Your task to perform on an android device: uninstall "DuckDuckGo Privacy Browser" Image 0: 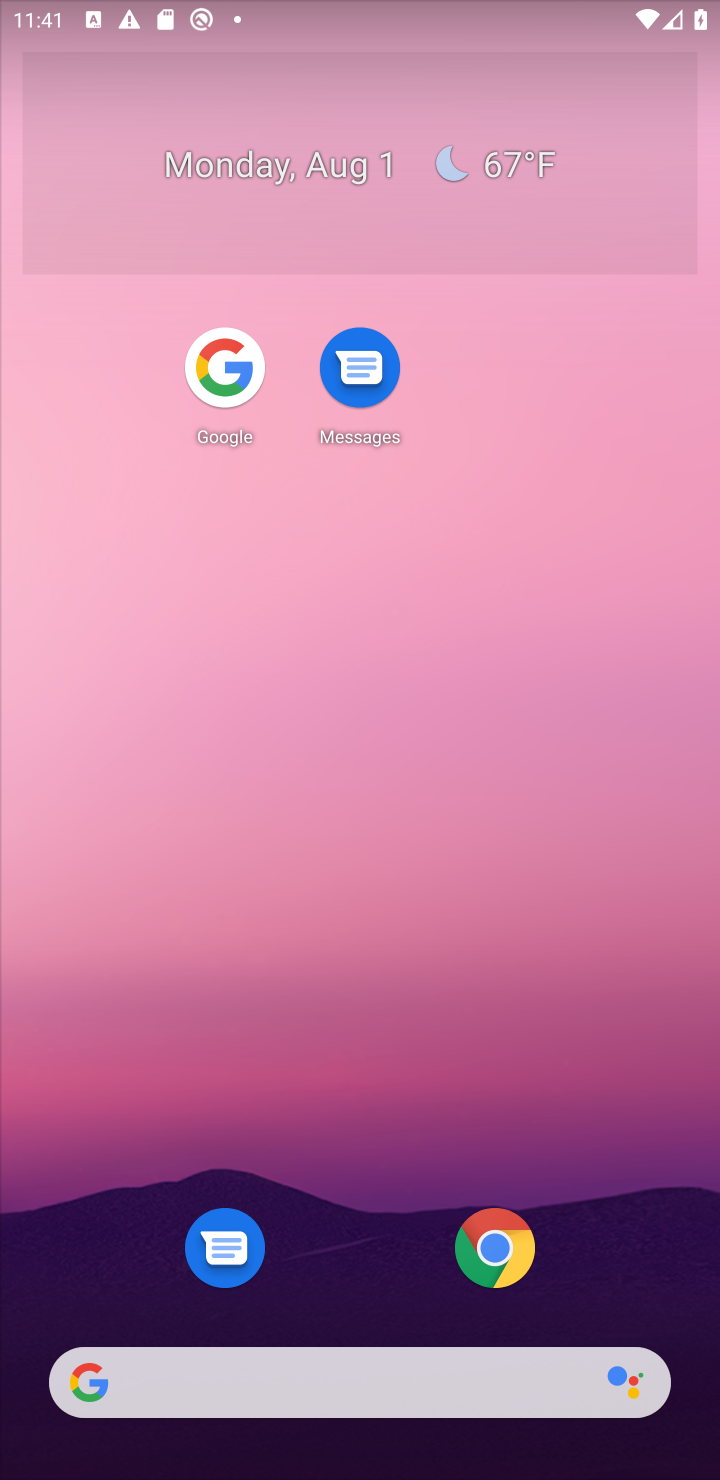
Step 0: drag from (524, 851) to (576, 253)
Your task to perform on an android device: uninstall "DuckDuckGo Privacy Browser" Image 1: 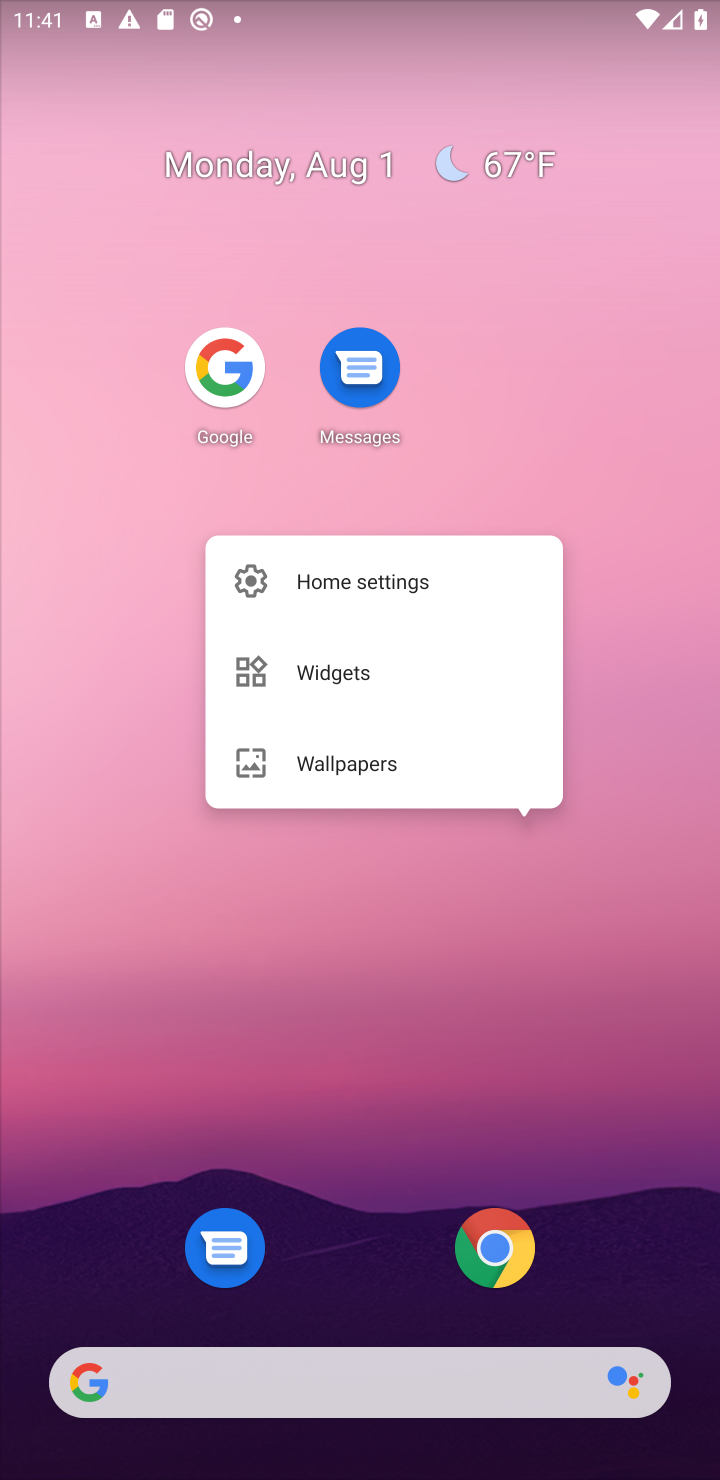
Step 1: click (524, 539)
Your task to perform on an android device: uninstall "DuckDuckGo Privacy Browser" Image 2: 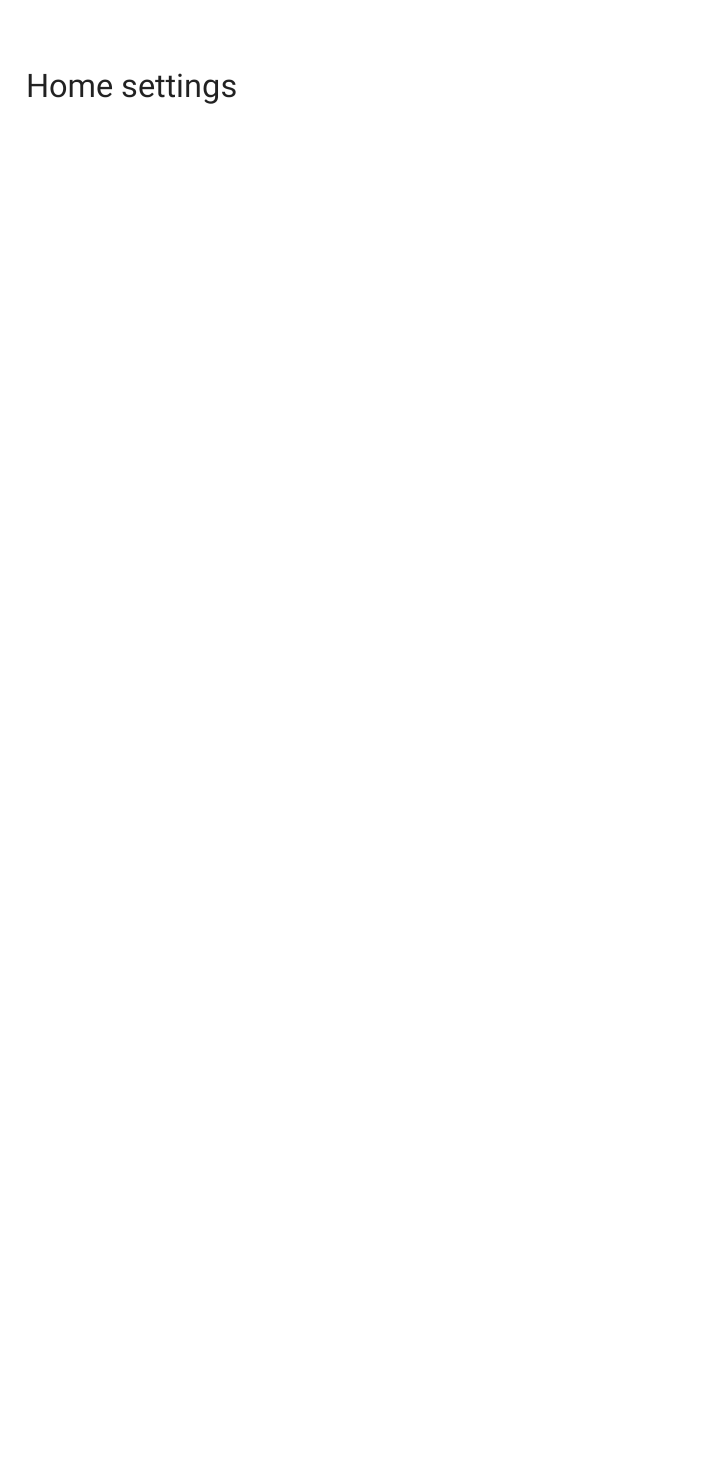
Step 2: click (531, 501)
Your task to perform on an android device: uninstall "DuckDuckGo Privacy Browser" Image 3: 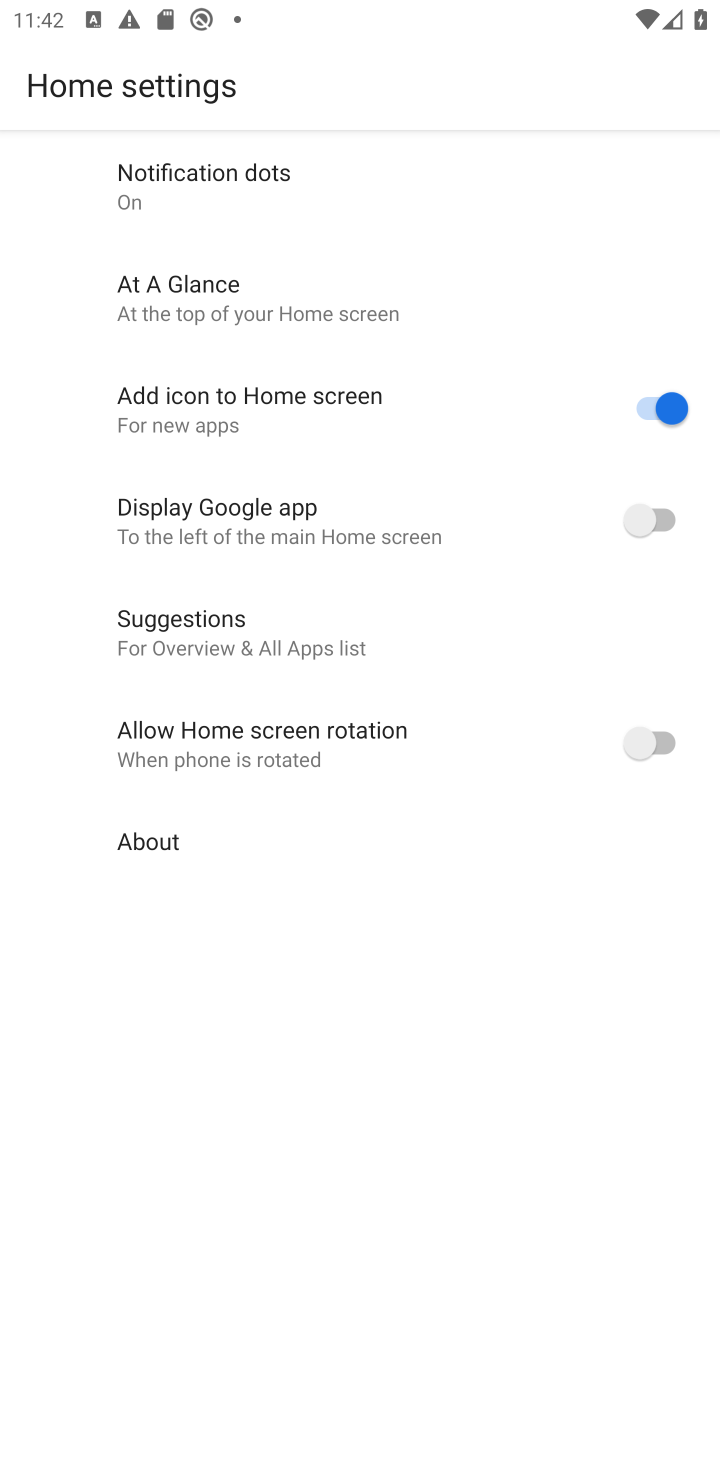
Step 3: press home button
Your task to perform on an android device: uninstall "DuckDuckGo Privacy Browser" Image 4: 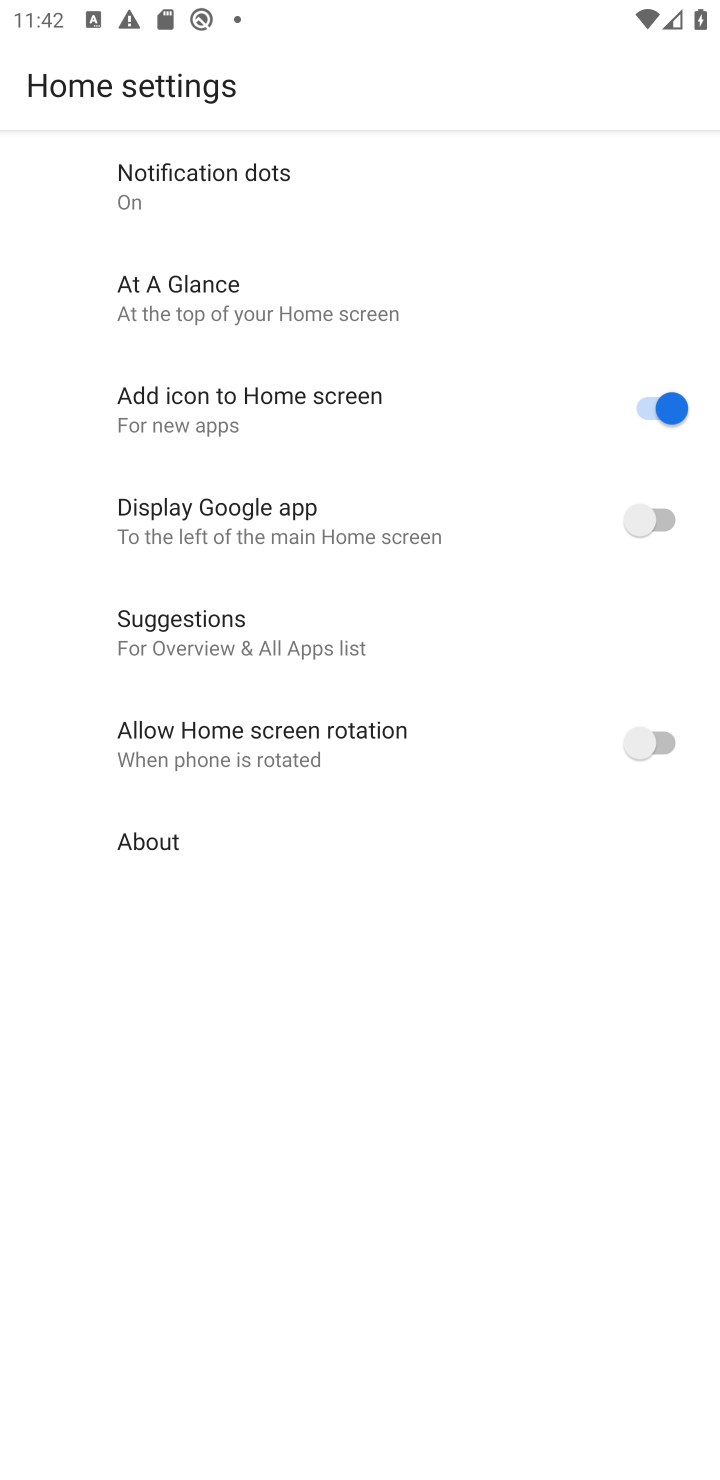
Step 4: press home button
Your task to perform on an android device: uninstall "DuckDuckGo Privacy Browser" Image 5: 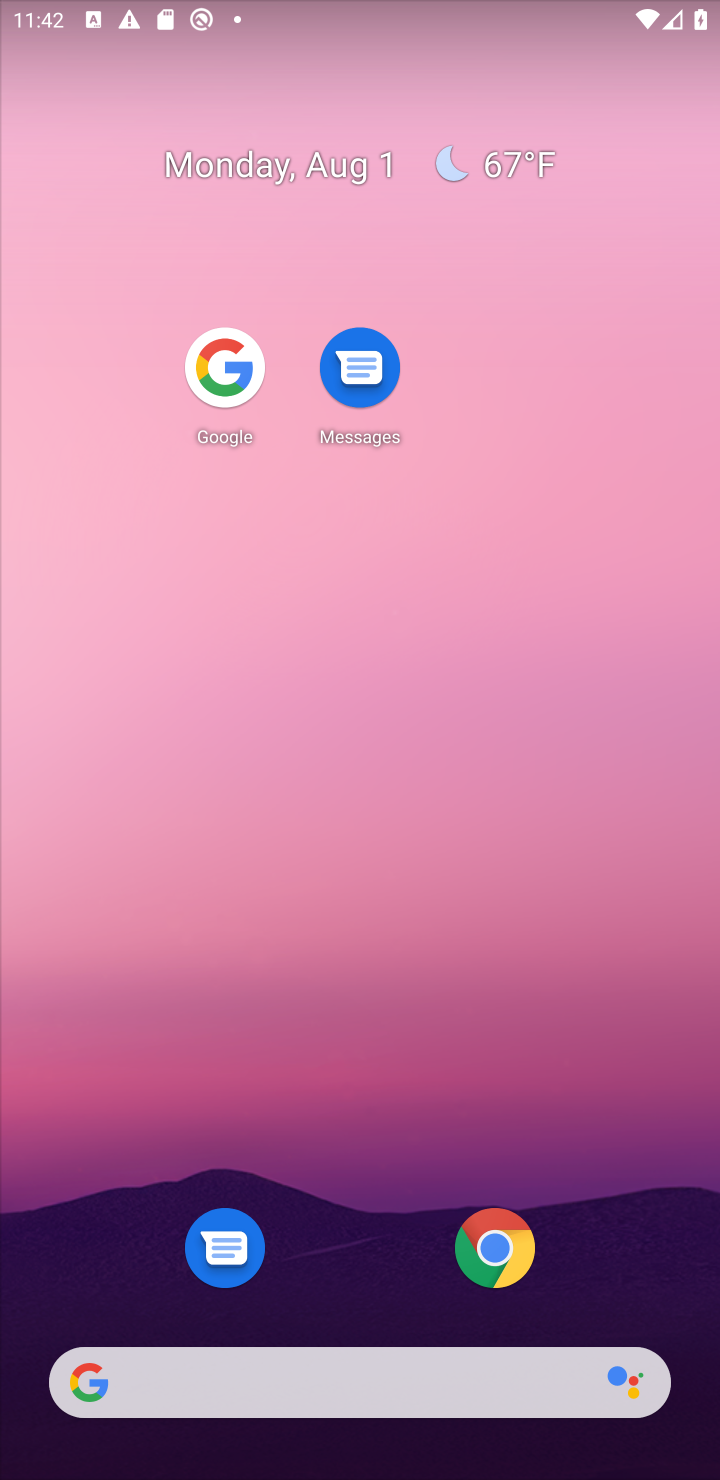
Step 5: press home button
Your task to perform on an android device: uninstall "DuckDuckGo Privacy Browser" Image 6: 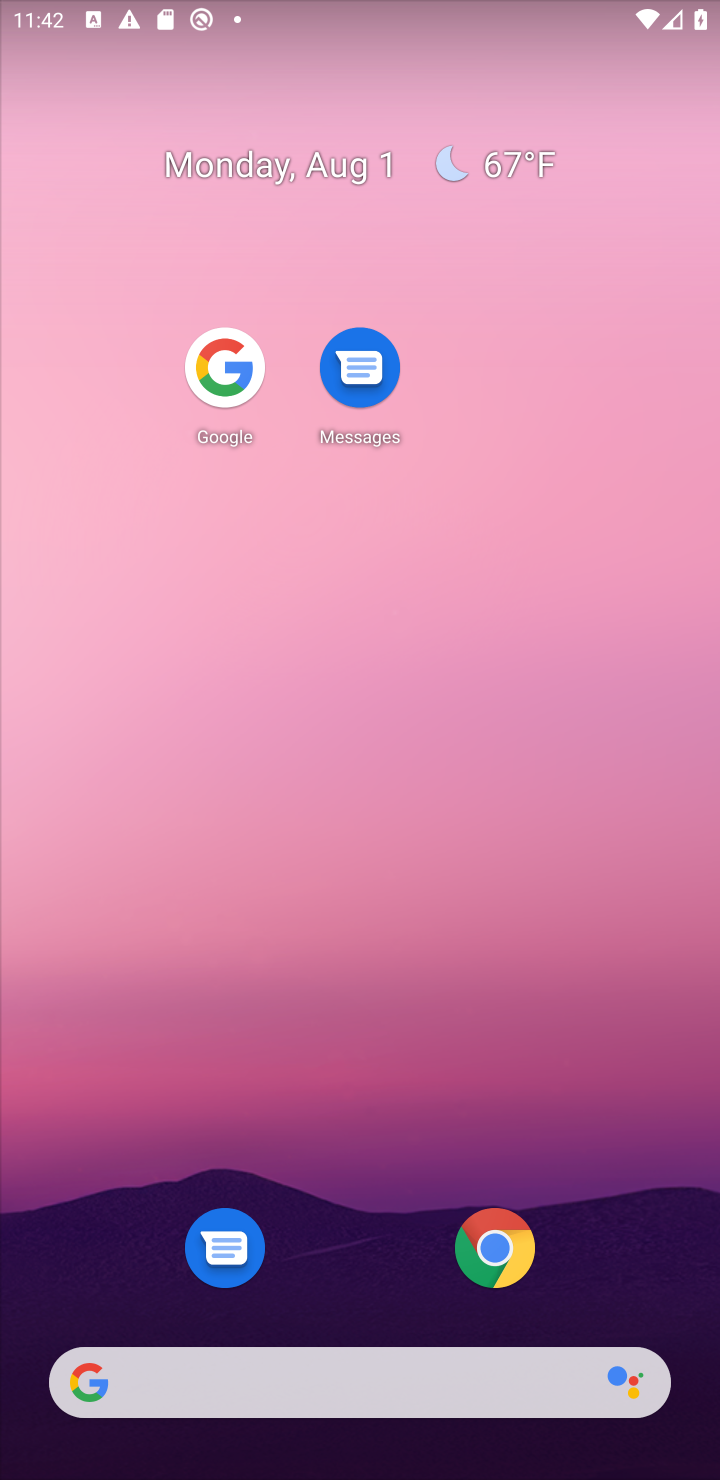
Step 6: drag from (601, 1065) to (578, 167)
Your task to perform on an android device: uninstall "DuckDuckGo Privacy Browser" Image 7: 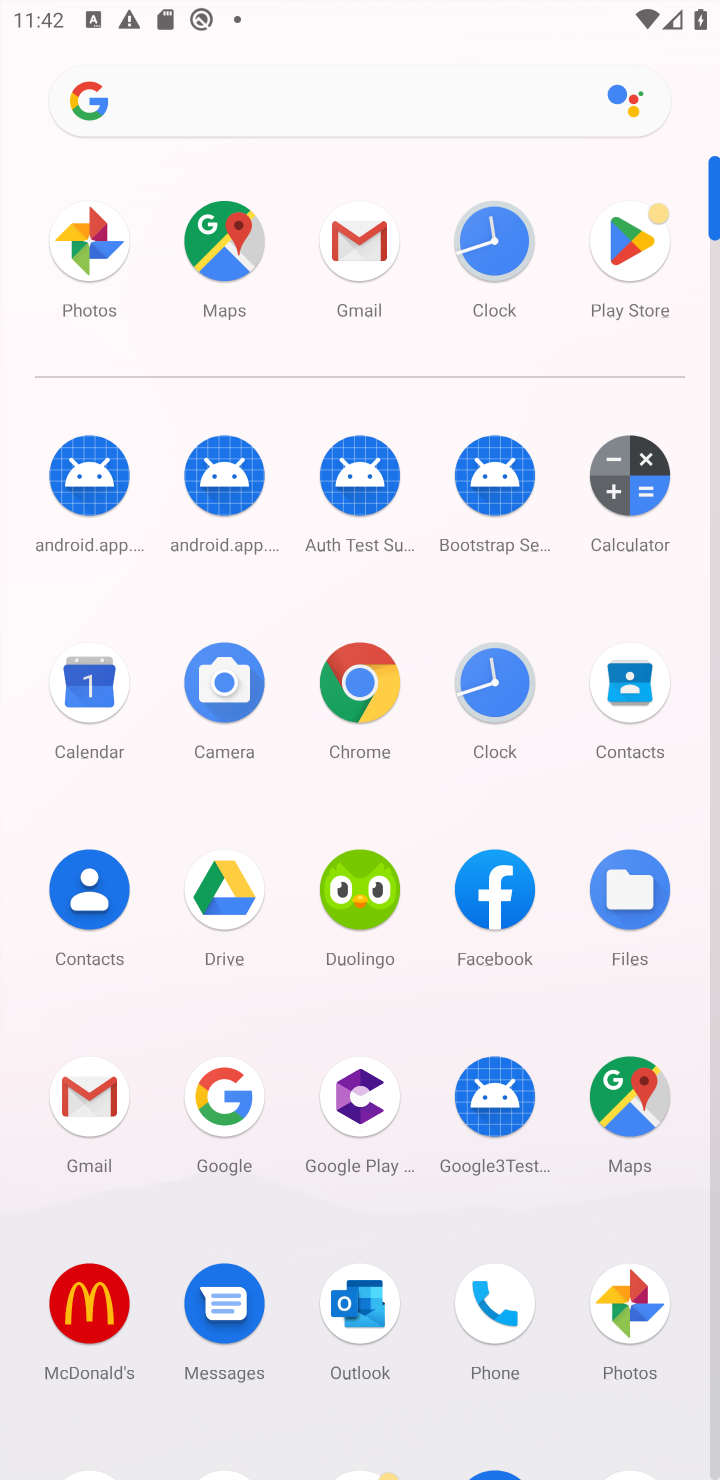
Step 7: drag from (298, 1221) to (262, 444)
Your task to perform on an android device: uninstall "DuckDuckGo Privacy Browser" Image 8: 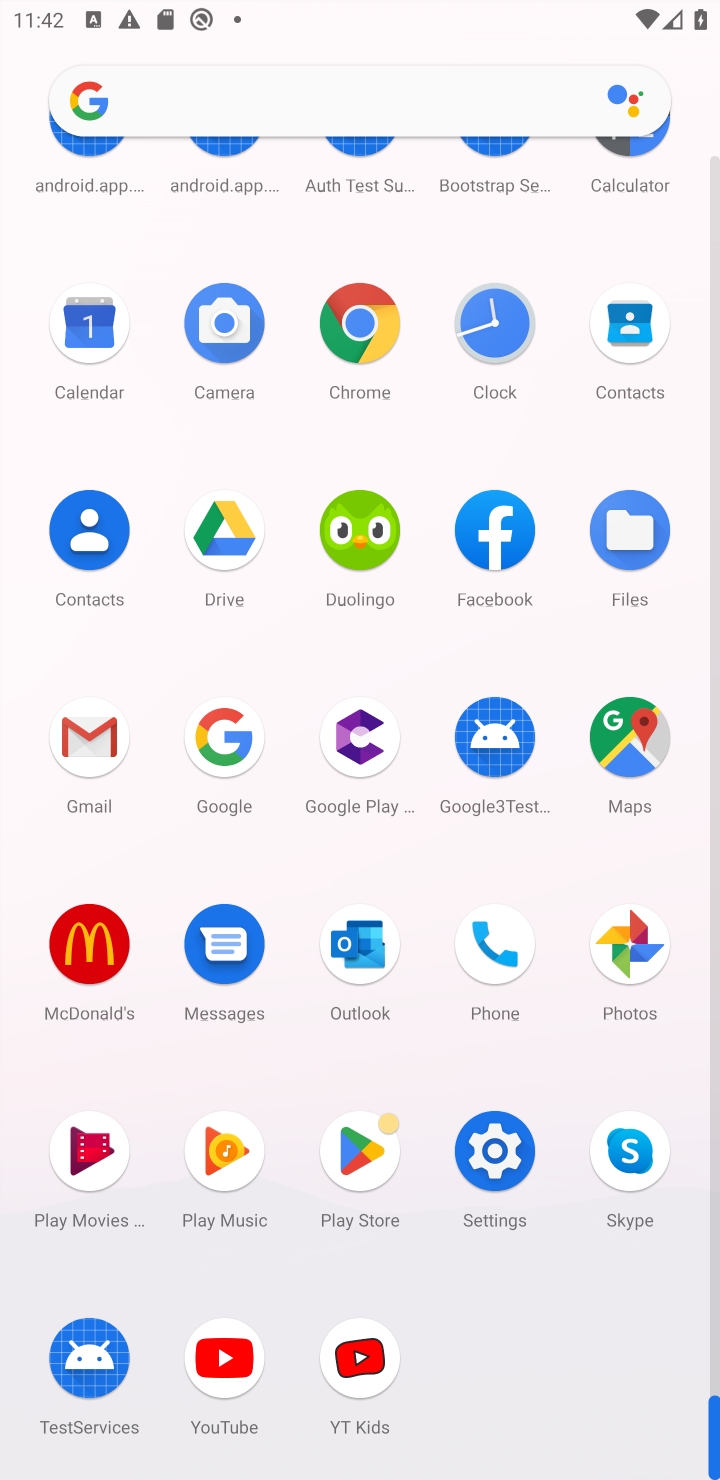
Step 8: click (357, 1136)
Your task to perform on an android device: uninstall "DuckDuckGo Privacy Browser" Image 9: 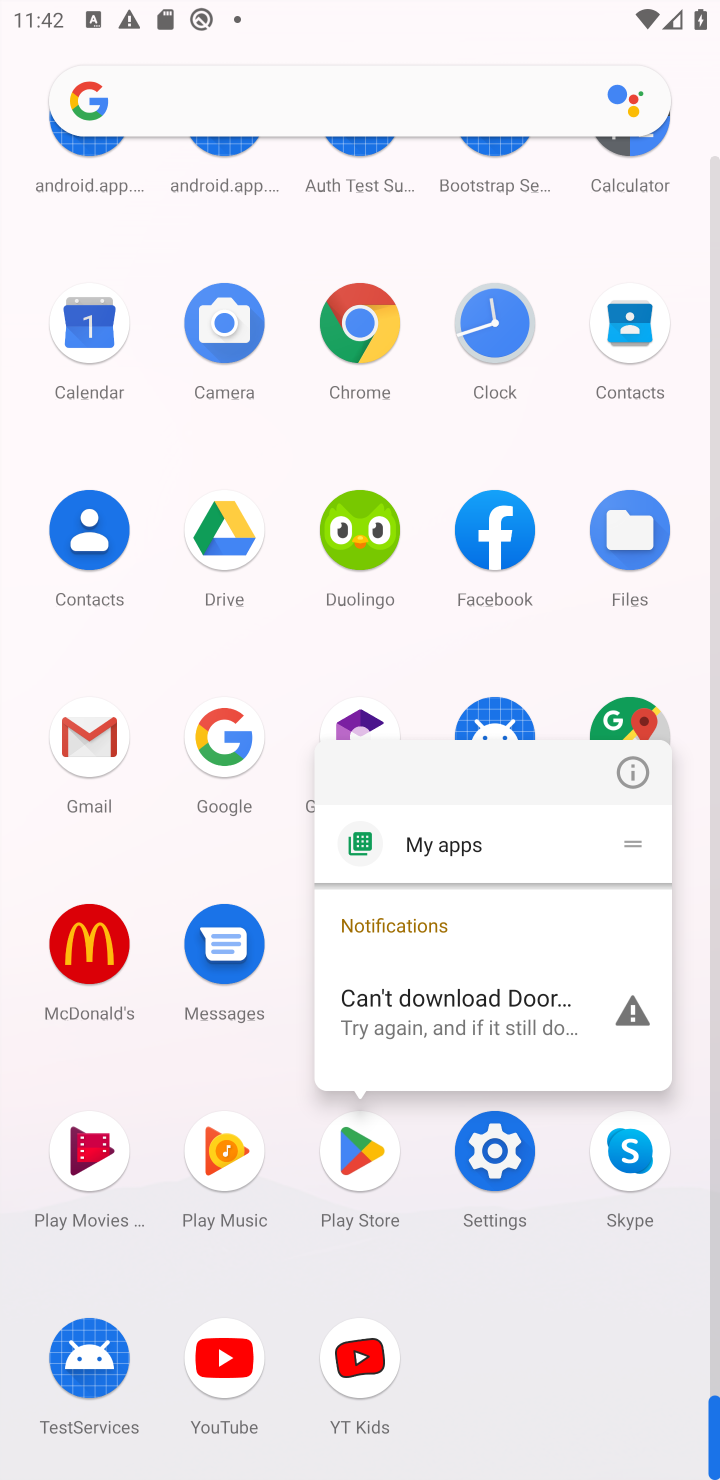
Step 9: click (368, 1176)
Your task to perform on an android device: uninstall "DuckDuckGo Privacy Browser" Image 10: 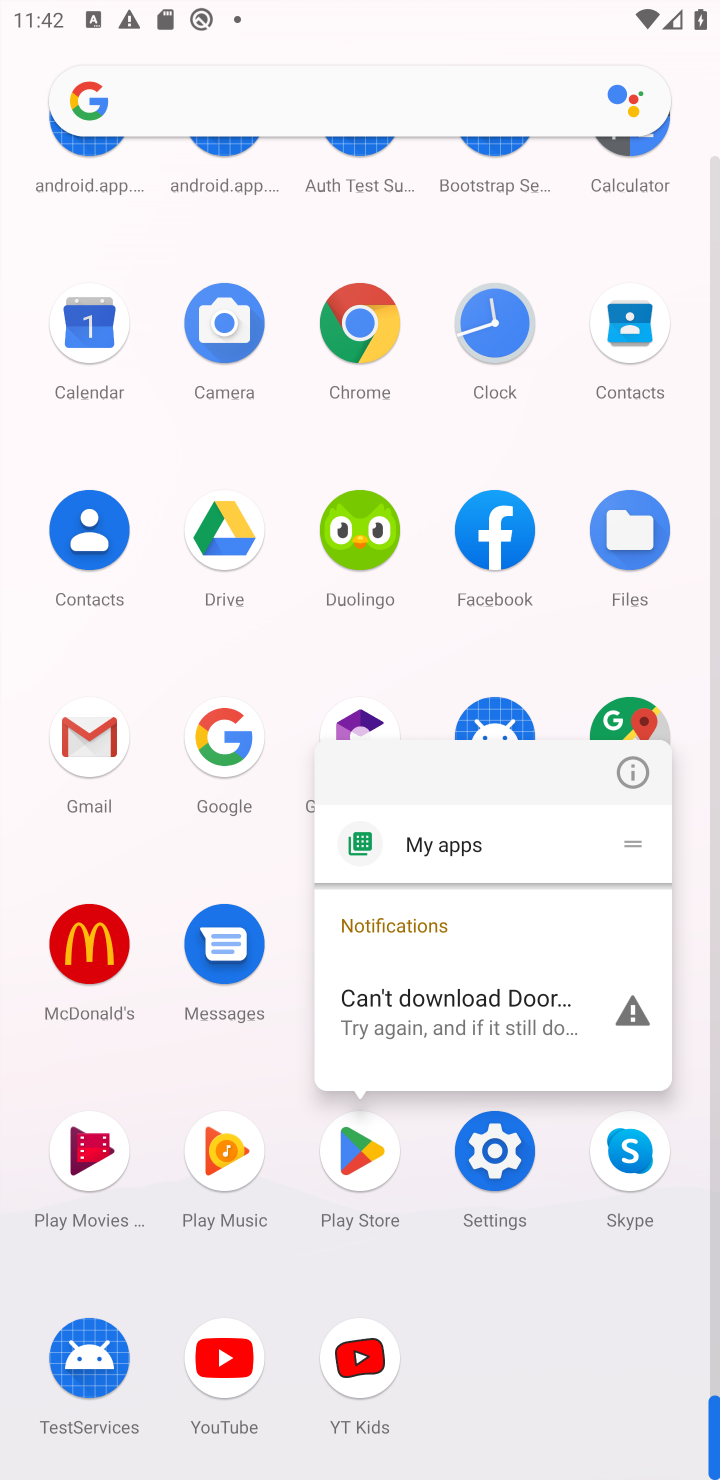
Step 10: click (353, 1134)
Your task to perform on an android device: uninstall "DuckDuckGo Privacy Browser" Image 11: 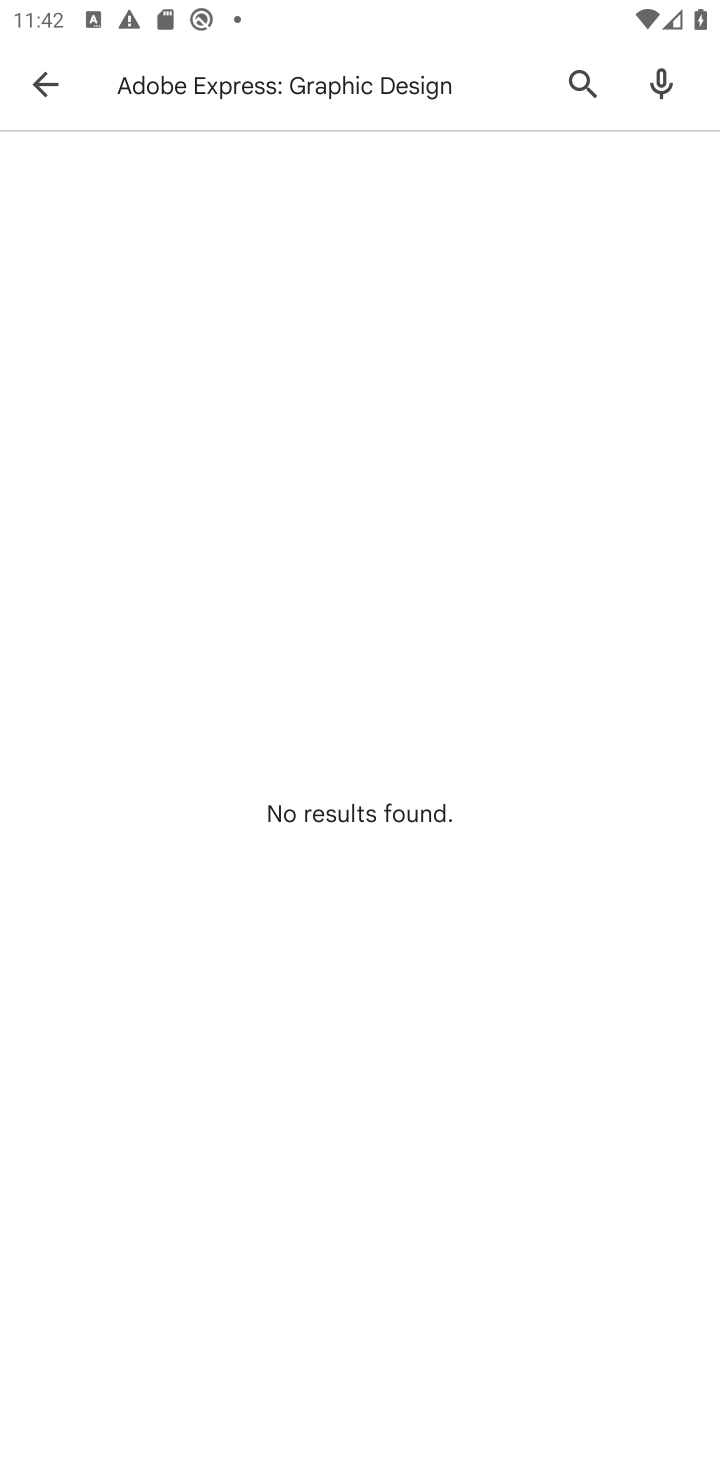
Step 11: click (360, 94)
Your task to perform on an android device: uninstall "DuckDuckGo Privacy Browser" Image 12: 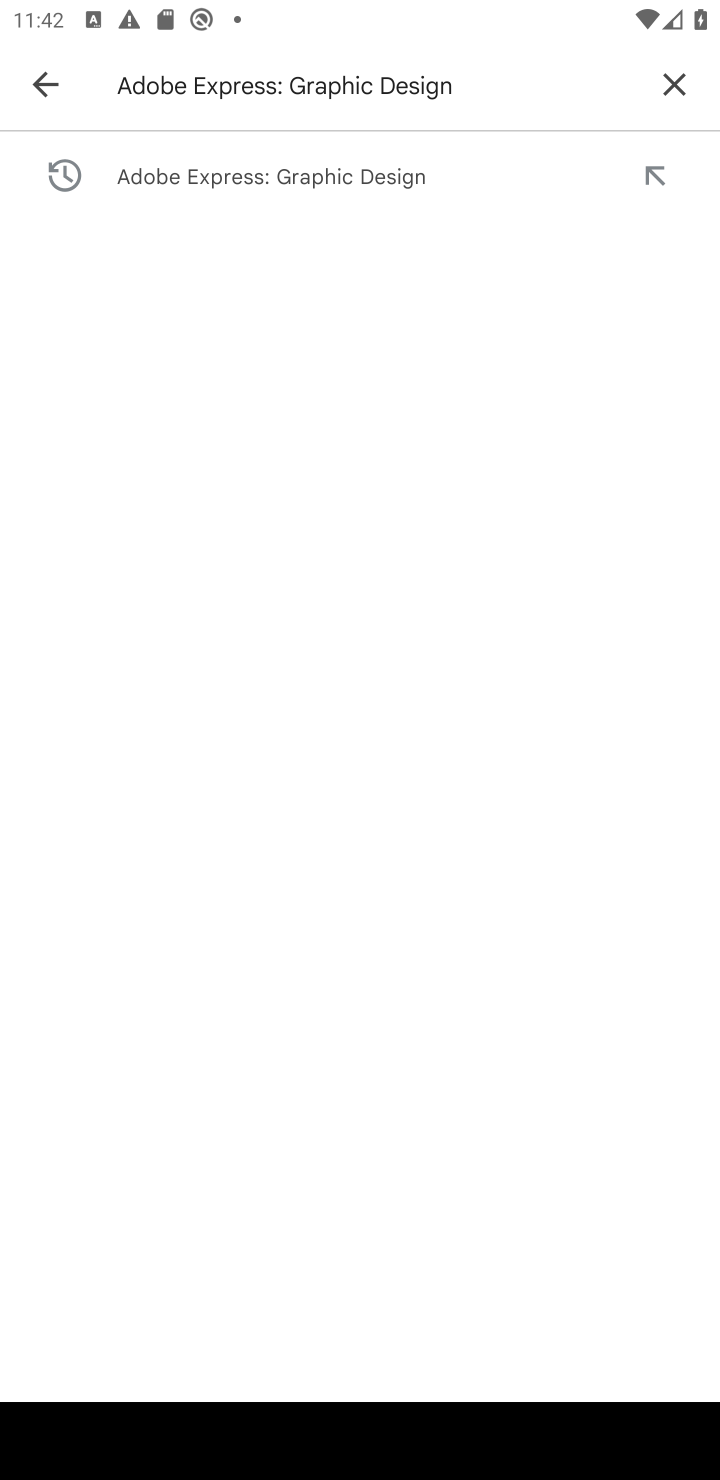
Step 12: click (689, 79)
Your task to perform on an android device: uninstall "DuckDuckGo Privacy Browser" Image 13: 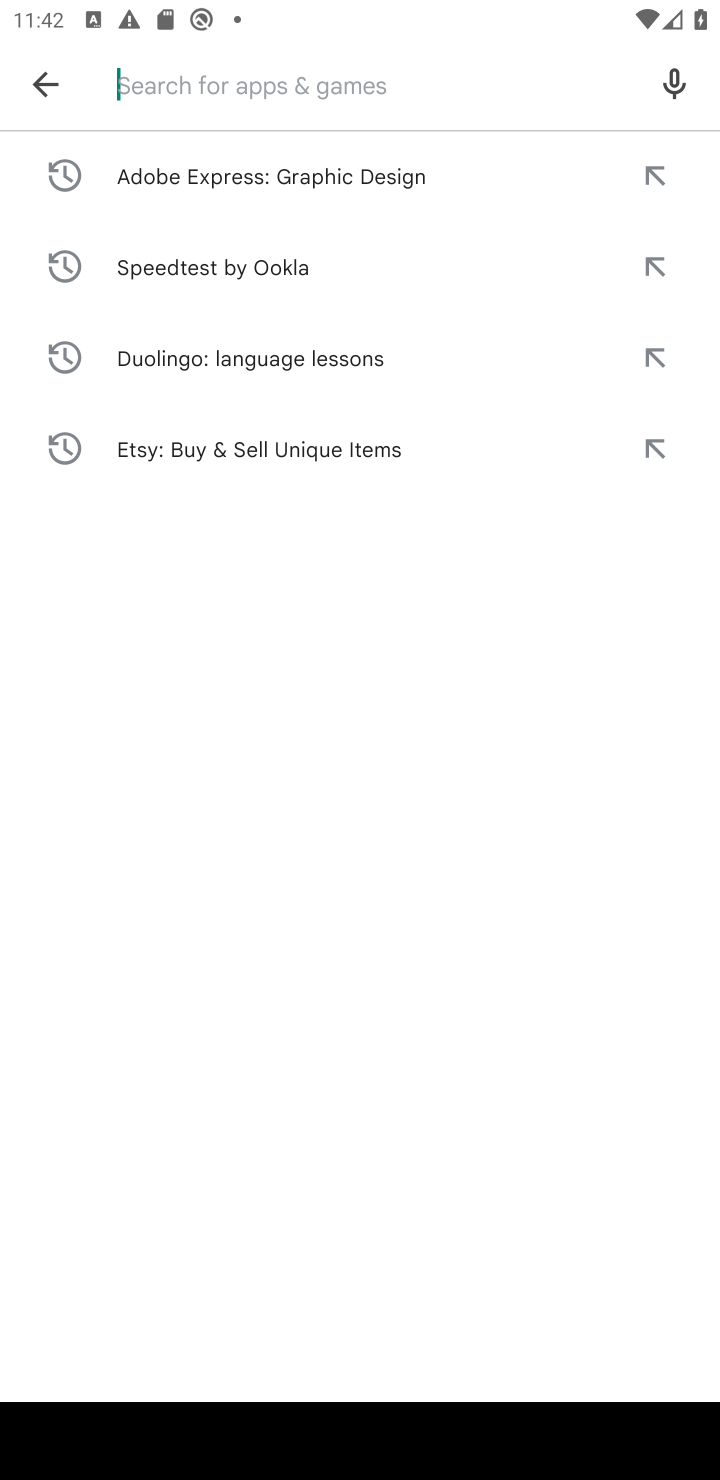
Step 13: type "DuckDuckGo Privacy Browser"
Your task to perform on an android device: uninstall "DuckDuckGo Privacy Browser" Image 14: 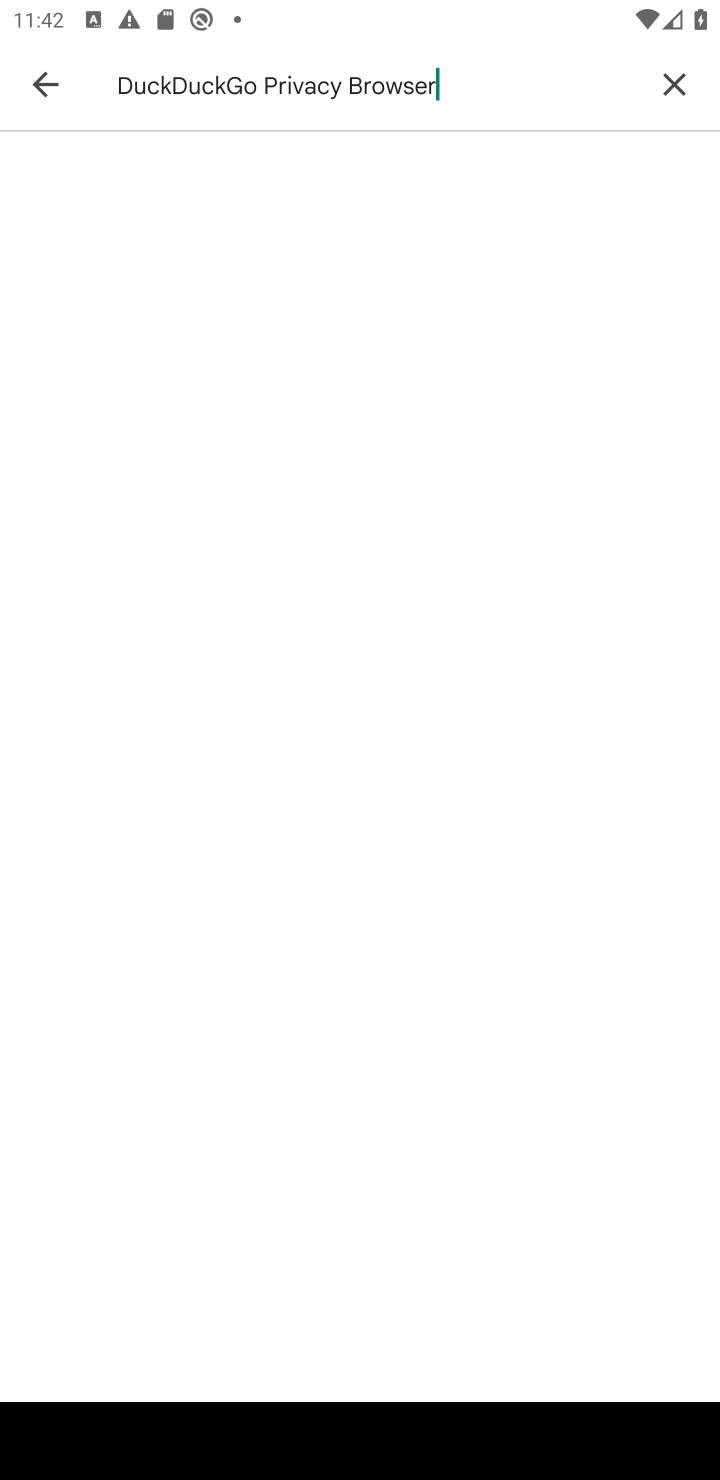
Step 14: press enter
Your task to perform on an android device: uninstall "DuckDuckGo Privacy Browser" Image 15: 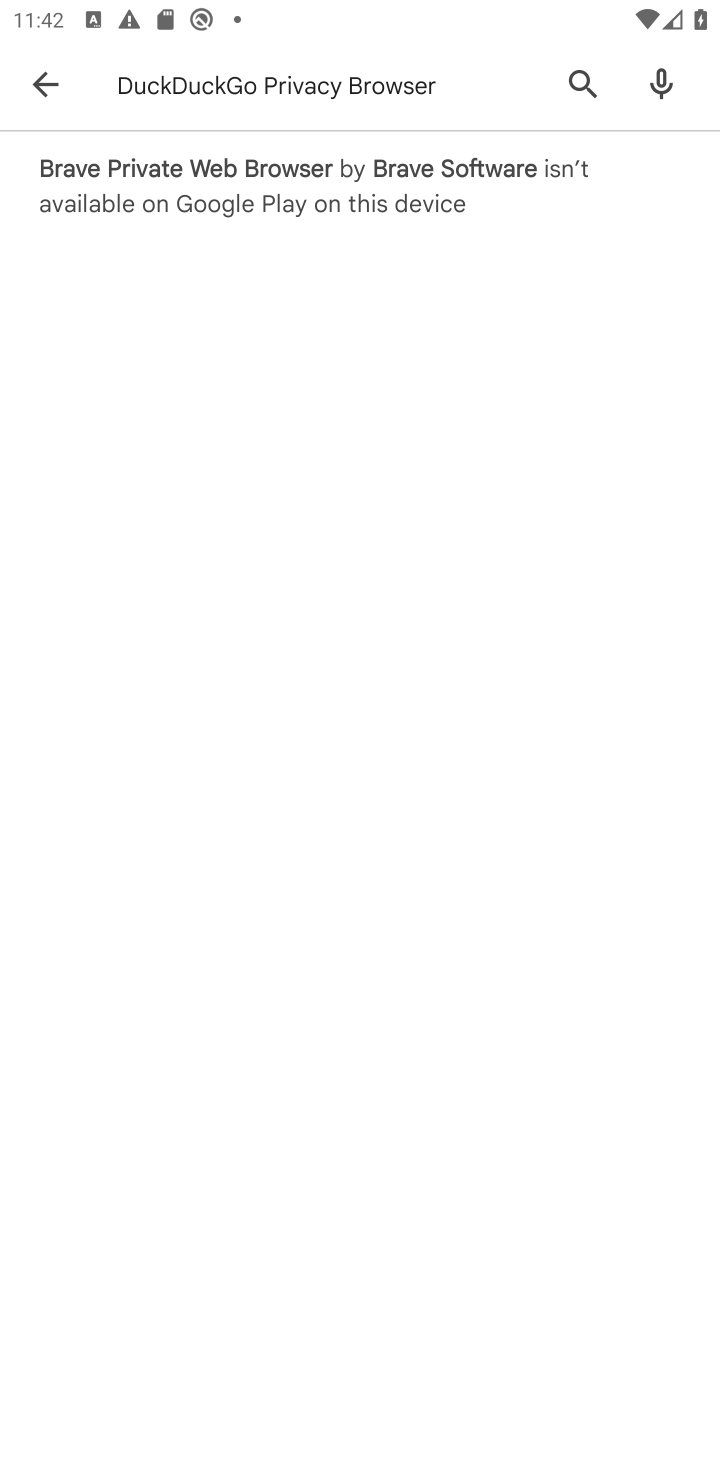
Step 15: task complete